Your task to perform on an android device: Clear all items from cart on bestbuy.com. Search for macbook on bestbuy.com, select the first entry, add it to the cart, then select checkout. Image 0: 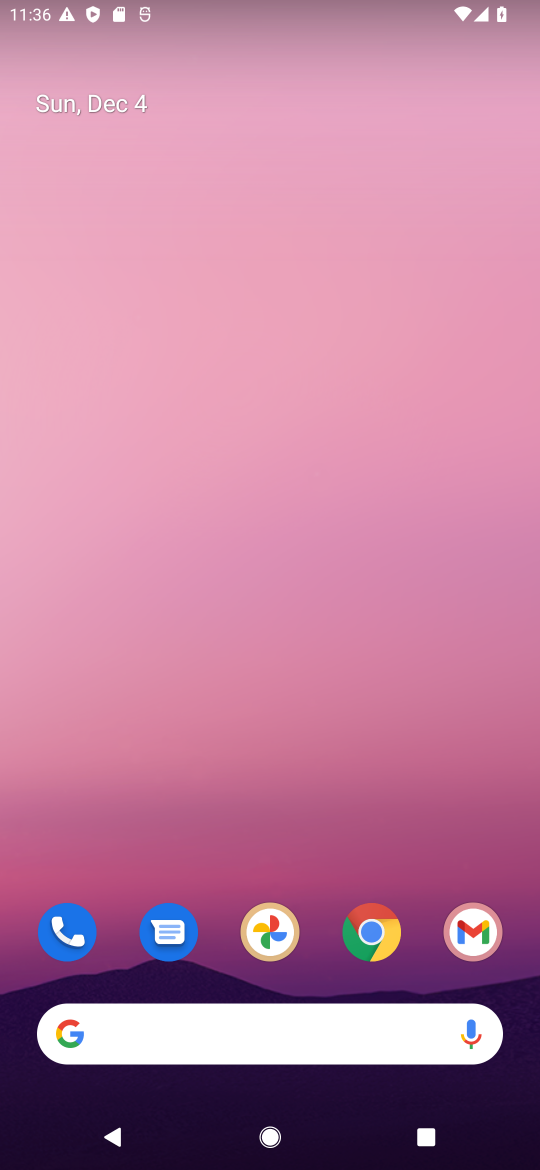
Step 0: task complete